Your task to perform on an android device: toggle translation in the chrome app Image 0: 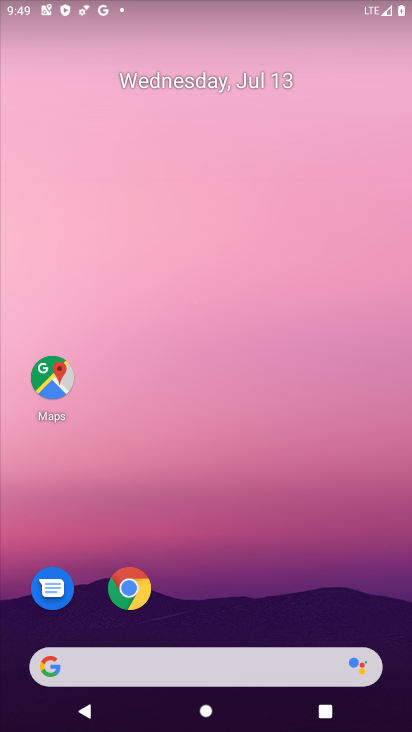
Step 0: drag from (257, 596) to (311, 38)
Your task to perform on an android device: toggle translation in the chrome app Image 1: 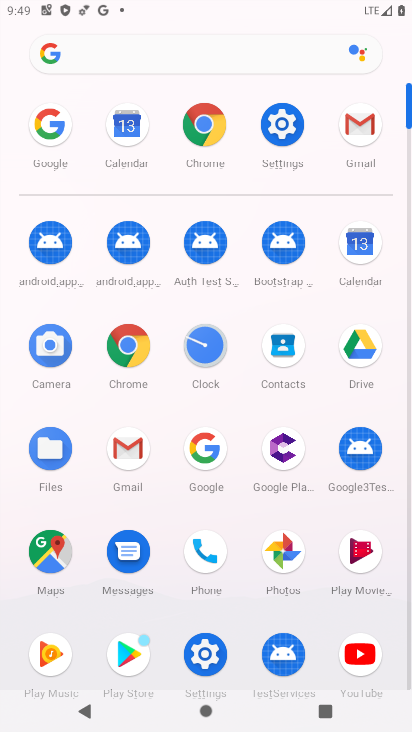
Step 1: click (208, 126)
Your task to perform on an android device: toggle translation in the chrome app Image 2: 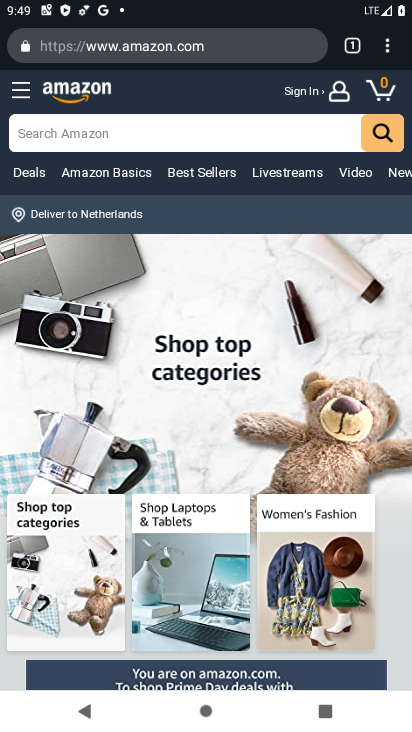
Step 2: click (388, 45)
Your task to perform on an android device: toggle translation in the chrome app Image 3: 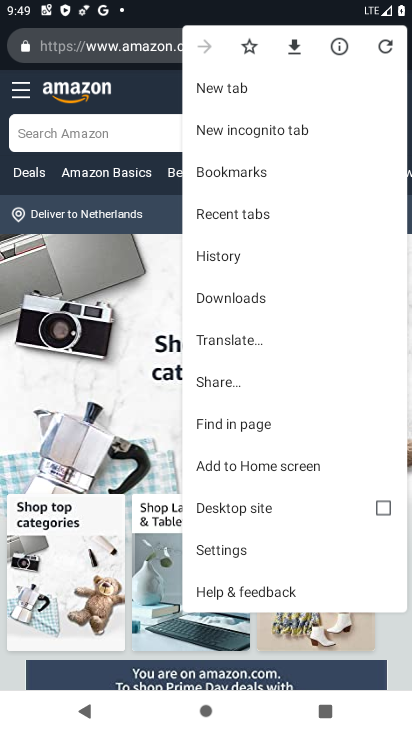
Step 3: click (261, 539)
Your task to perform on an android device: toggle translation in the chrome app Image 4: 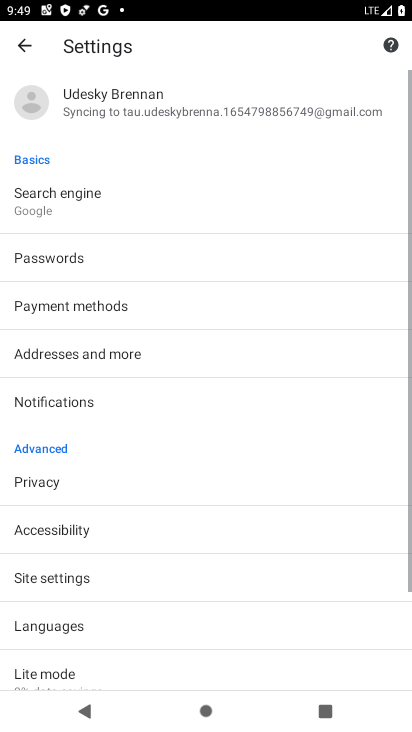
Step 4: click (131, 617)
Your task to perform on an android device: toggle translation in the chrome app Image 5: 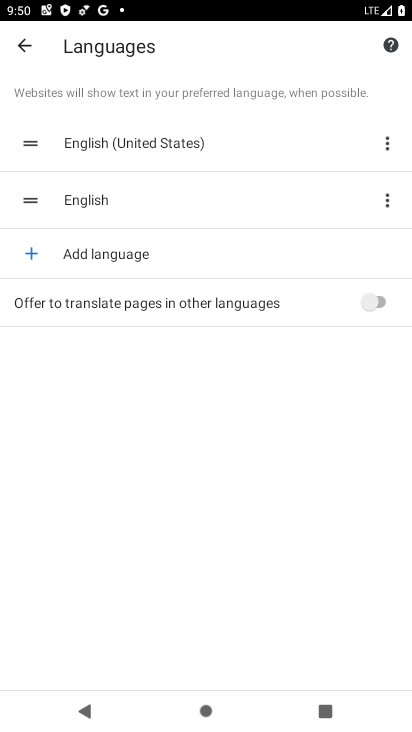
Step 5: click (374, 299)
Your task to perform on an android device: toggle translation in the chrome app Image 6: 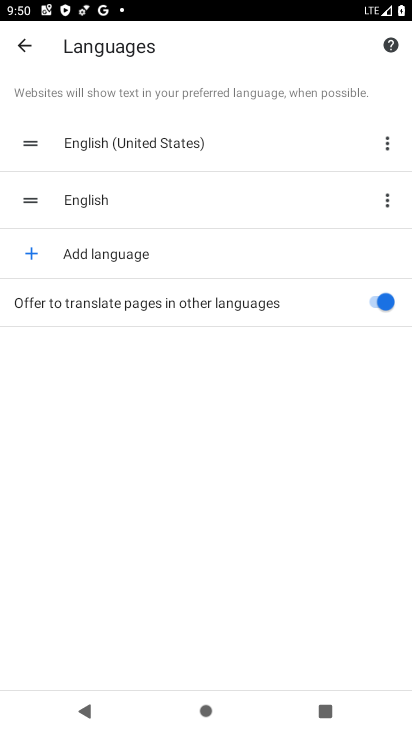
Step 6: task complete